Your task to perform on an android device: Go to calendar. Show me events next week Image 0: 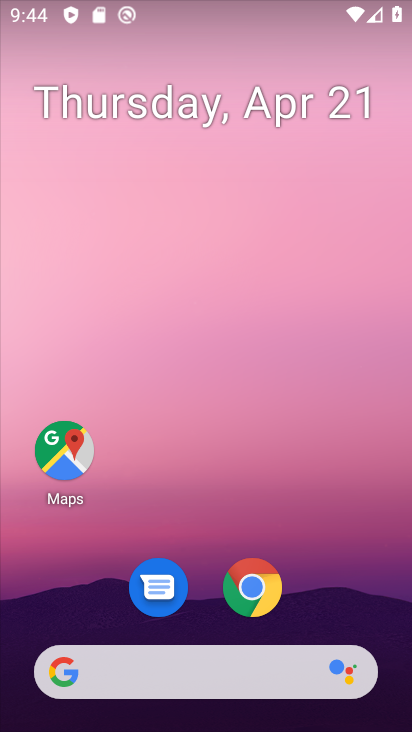
Step 0: drag from (352, 590) to (365, 82)
Your task to perform on an android device: Go to calendar. Show me events next week Image 1: 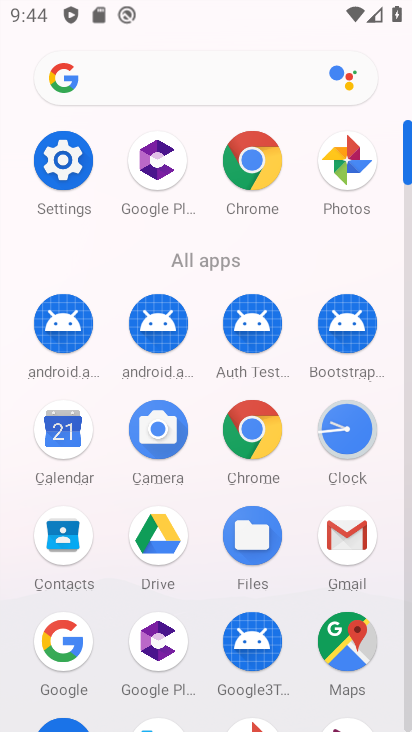
Step 1: click (73, 439)
Your task to perform on an android device: Go to calendar. Show me events next week Image 2: 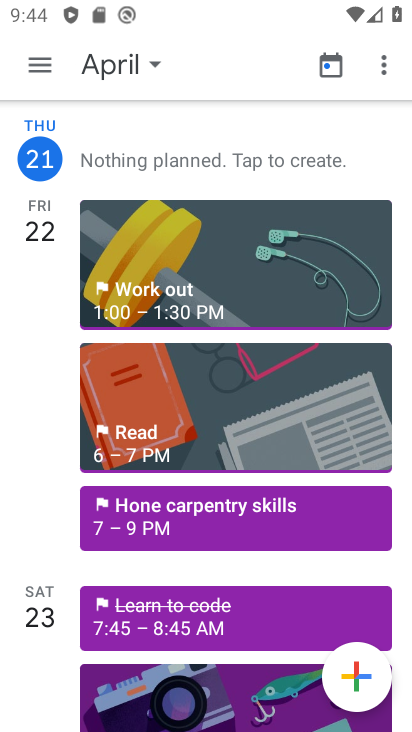
Step 2: click (156, 62)
Your task to perform on an android device: Go to calendar. Show me events next week Image 3: 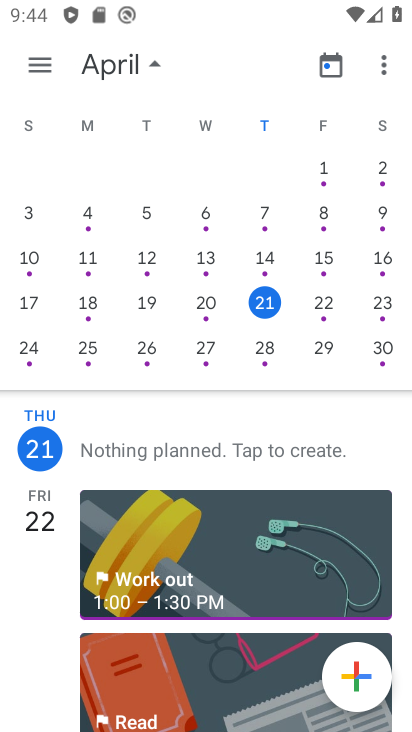
Step 3: click (84, 350)
Your task to perform on an android device: Go to calendar. Show me events next week Image 4: 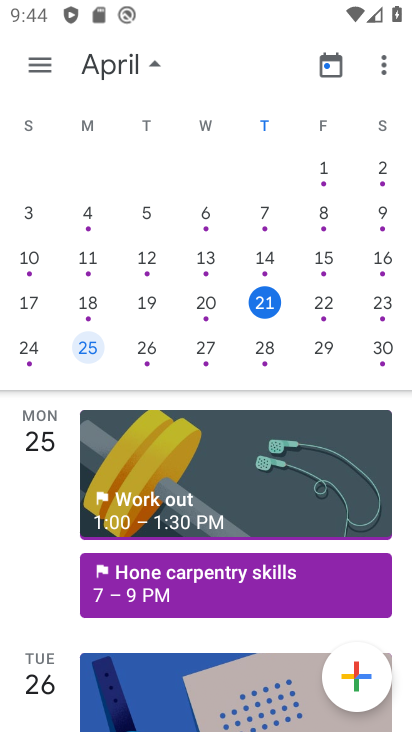
Step 4: task complete